Your task to perform on an android device: turn on airplane mode Image 0: 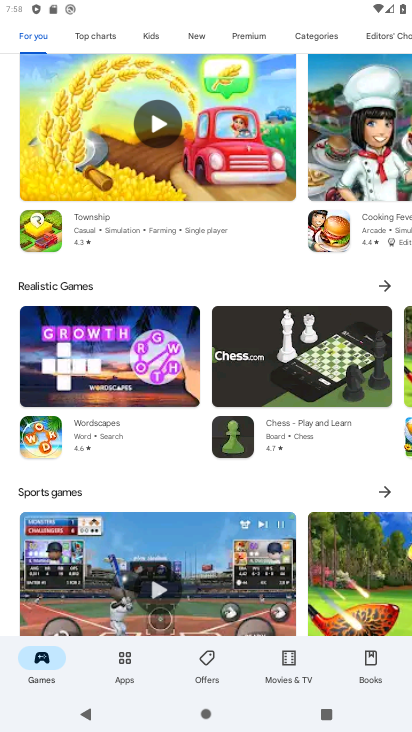
Step 0: press home button
Your task to perform on an android device: turn on airplane mode Image 1: 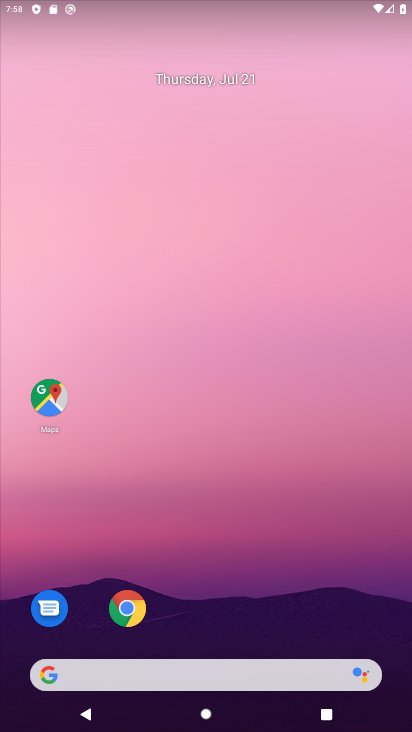
Step 1: drag from (212, 5) to (294, 458)
Your task to perform on an android device: turn on airplane mode Image 2: 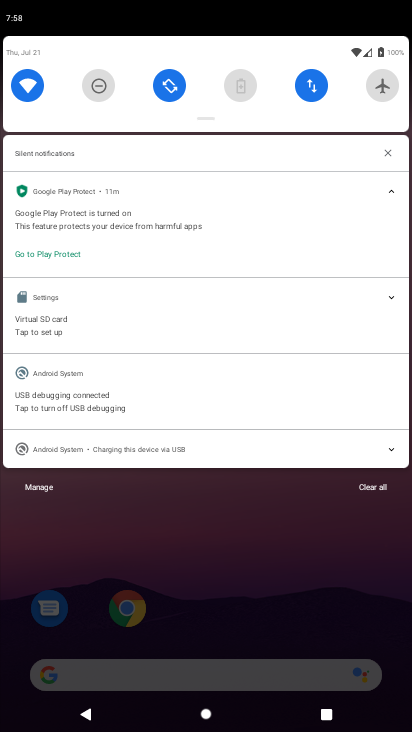
Step 2: click (385, 89)
Your task to perform on an android device: turn on airplane mode Image 3: 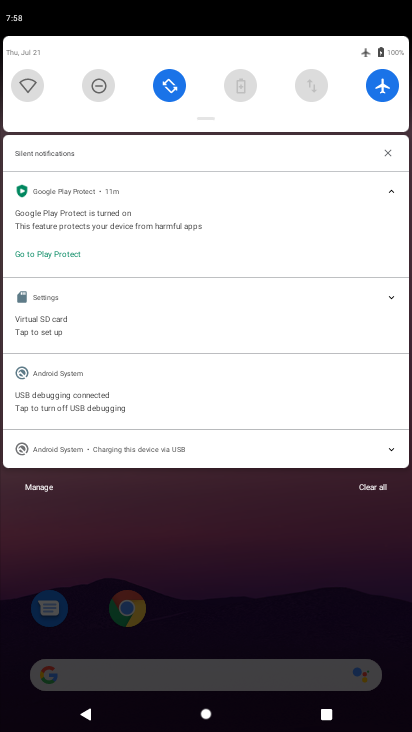
Step 3: task complete